Your task to perform on an android device: Find coffee shops on Maps Image 0: 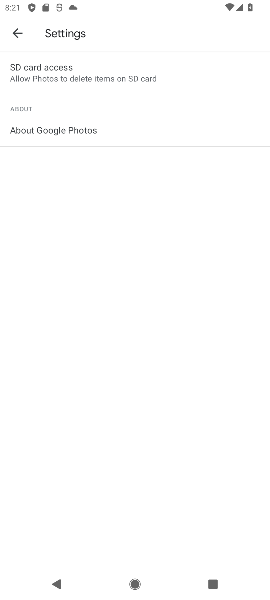
Step 0: drag from (107, 439) to (106, 13)
Your task to perform on an android device: Find coffee shops on Maps Image 1: 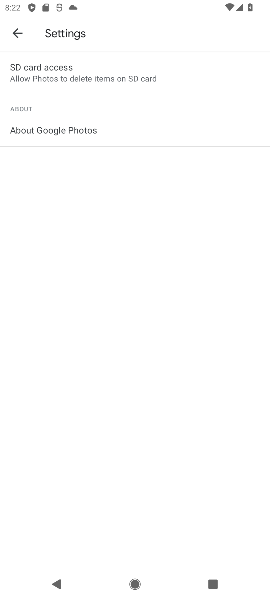
Step 1: drag from (146, 209) to (92, 462)
Your task to perform on an android device: Find coffee shops on Maps Image 2: 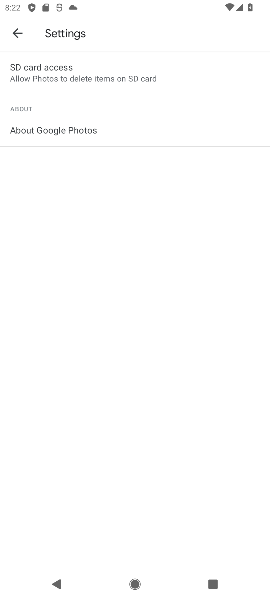
Step 2: press home button
Your task to perform on an android device: Find coffee shops on Maps Image 3: 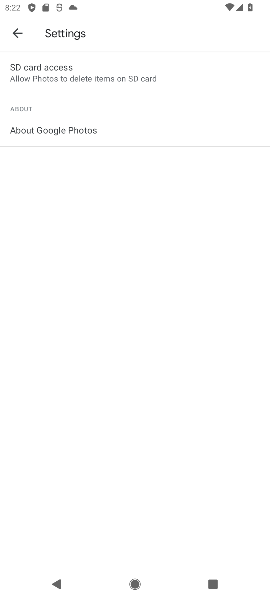
Step 3: drag from (122, 431) to (115, 13)
Your task to perform on an android device: Find coffee shops on Maps Image 4: 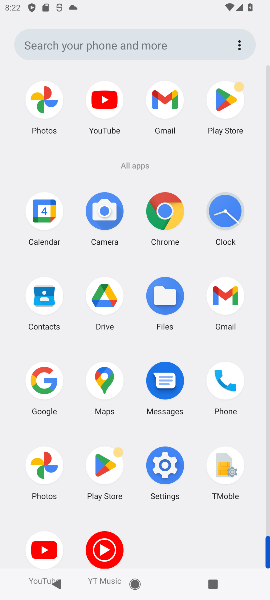
Step 4: click (80, 43)
Your task to perform on an android device: Find coffee shops on Maps Image 5: 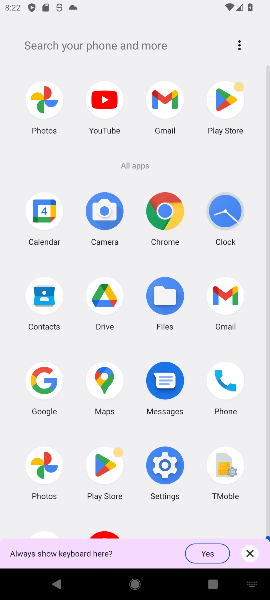
Step 5: click (103, 385)
Your task to perform on an android device: Find coffee shops on Maps Image 6: 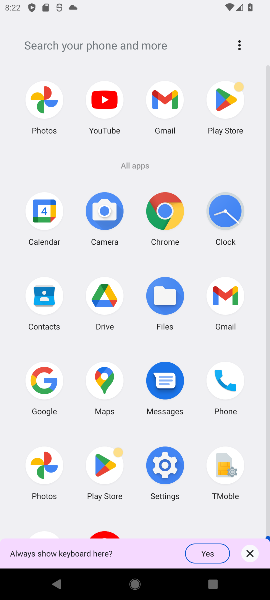
Step 6: click (103, 385)
Your task to perform on an android device: Find coffee shops on Maps Image 7: 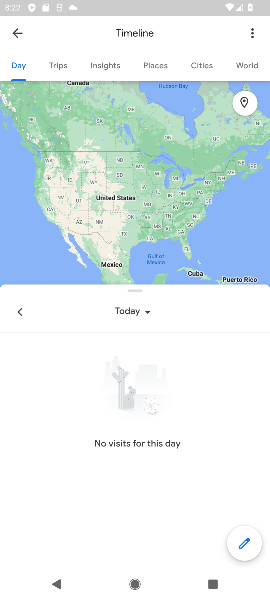
Step 7: click (14, 30)
Your task to perform on an android device: Find coffee shops on Maps Image 8: 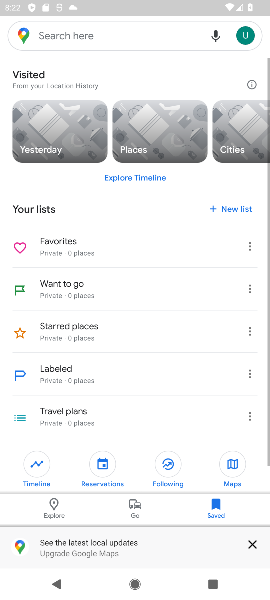
Step 8: click (84, 36)
Your task to perform on an android device: Find coffee shops on Maps Image 9: 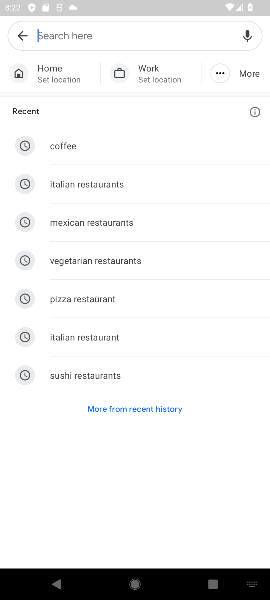
Step 9: click (94, 153)
Your task to perform on an android device: Find coffee shops on Maps Image 10: 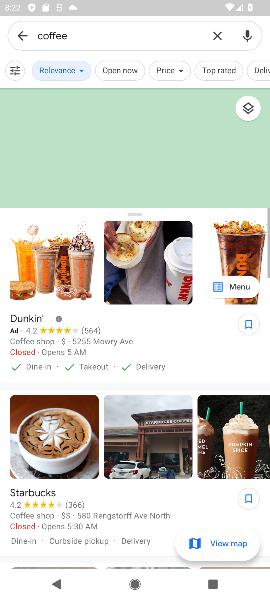
Step 10: task complete